Your task to perform on an android device: turn off picture-in-picture Image 0: 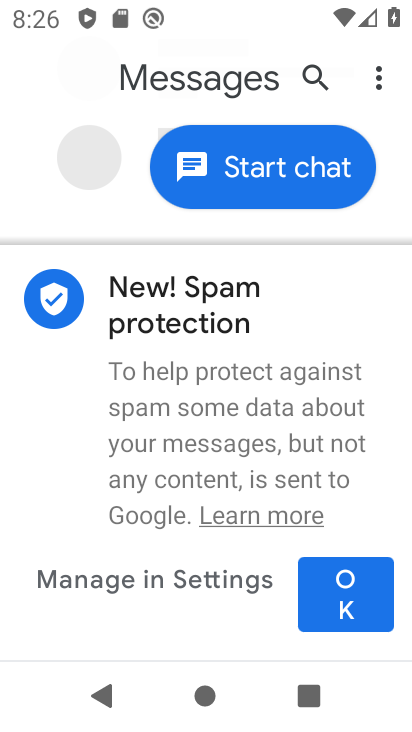
Step 0: press back button
Your task to perform on an android device: turn off picture-in-picture Image 1: 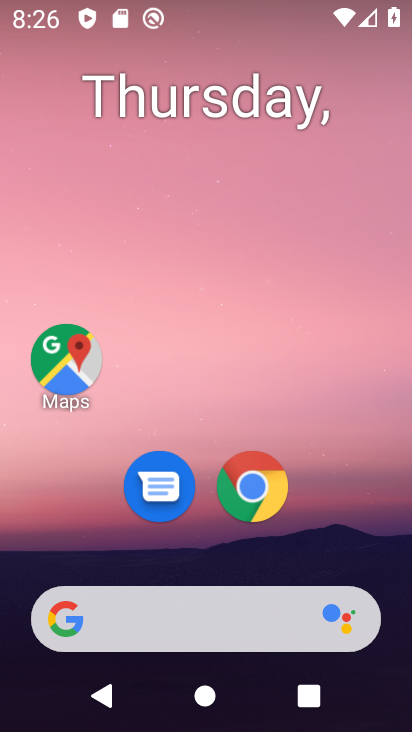
Step 1: drag from (149, 516) to (209, 17)
Your task to perform on an android device: turn off picture-in-picture Image 2: 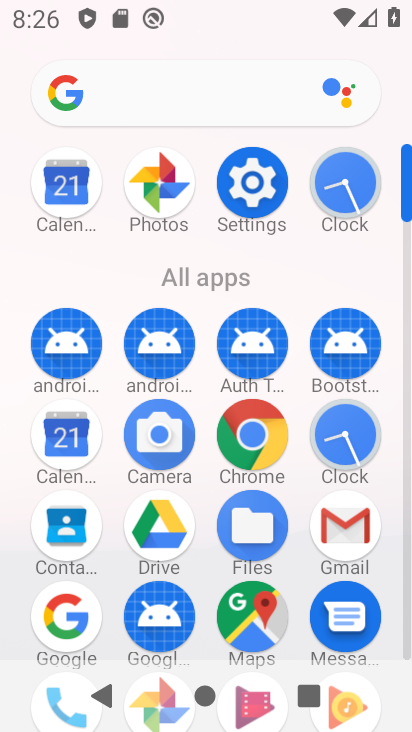
Step 2: click (256, 179)
Your task to perform on an android device: turn off picture-in-picture Image 3: 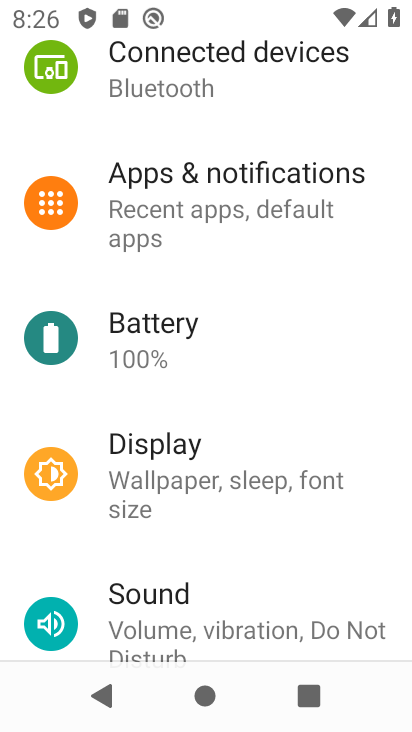
Step 3: click (261, 196)
Your task to perform on an android device: turn off picture-in-picture Image 4: 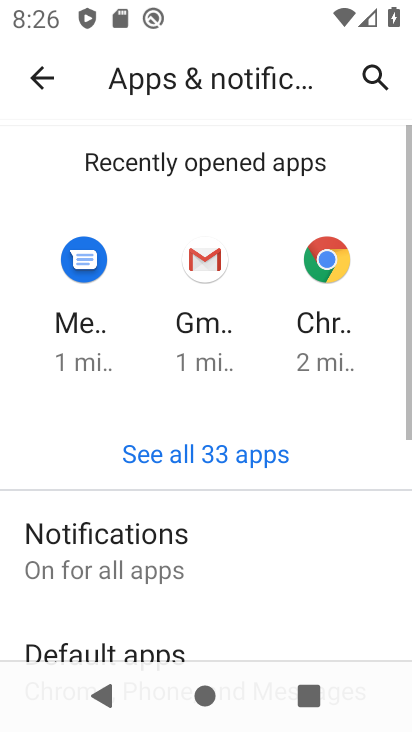
Step 4: drag from (148, 567) to (249, 79)
Your task to perform on an android device: turn off picture-in-picture Image 5: 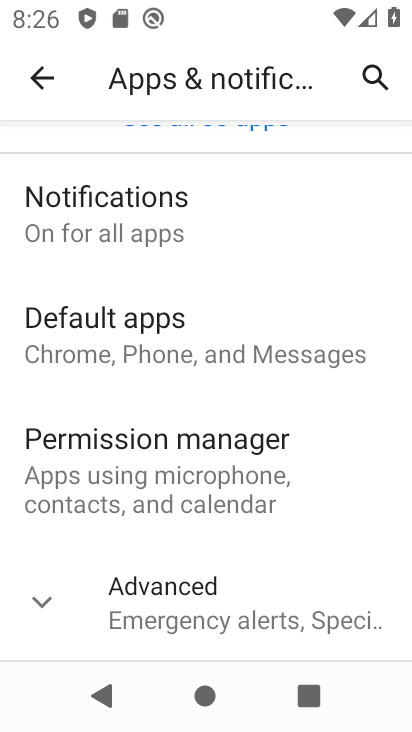
Step 5: click (195, 580)
Your task to perform on an android device: turn off picture-in-picture Image 6: 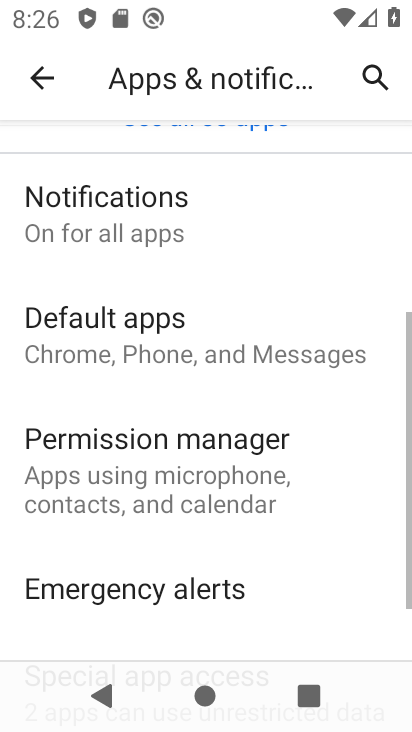
Step 6: drag from (192, 583) to (257, 81)
Your task to perform on an android device: turn off picture-in-picture Image 7: 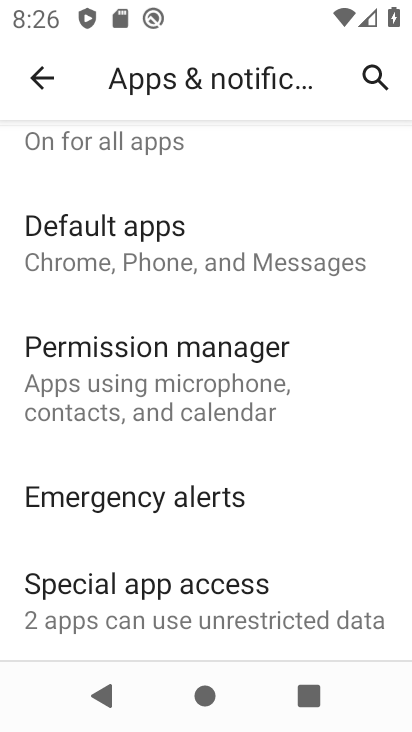
Step 7: click (114, 616)
Your task to perform on an android device: turn off picture-in-picture Image 8: 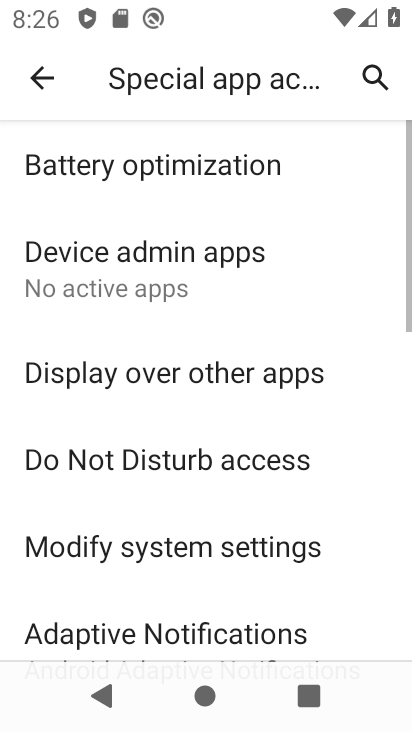
Step 8: drag from (131, 592) to (207, 109)
Your task to perform on an android device: turn off picture-in-picture Image 9: 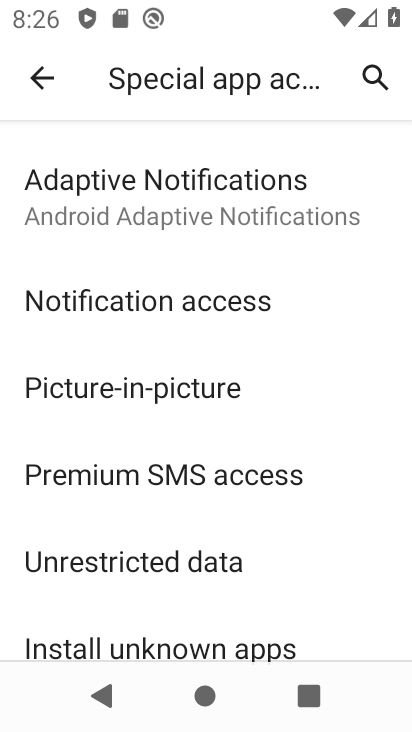
Step 9: click (130, 398)
Your task to perform on an android device: turn off picture-in-picture Image 10: 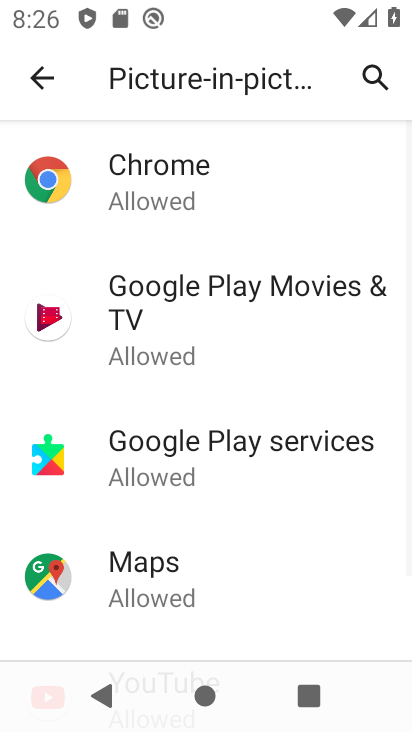
Step 10: click (186, 191)
Your task to perform on an android device: turn off picture-in-picture Image 11: 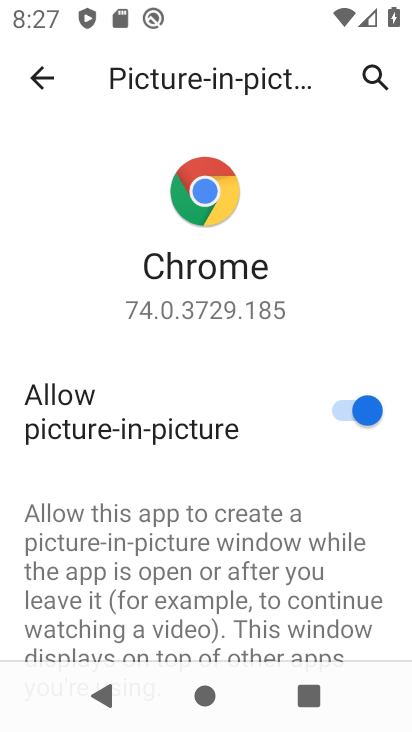
Step 11: click (356, 415)
Your task to perform on an android device: turn off picture-in-picture Image 12: 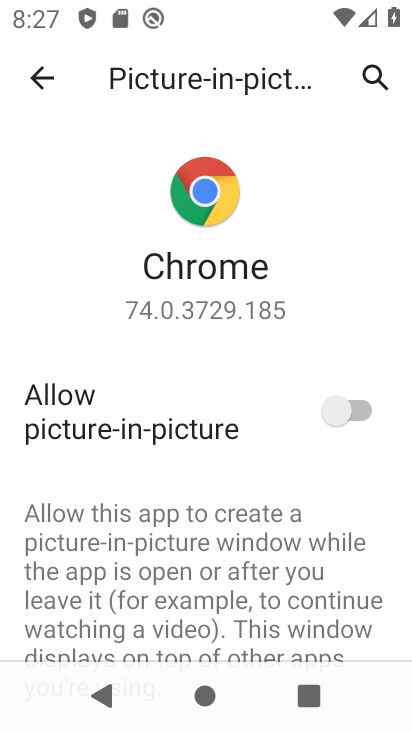
Step 12: task complete